Your task to perform on an android device: Open Youtube and go to the subscriptions tab Image 0: 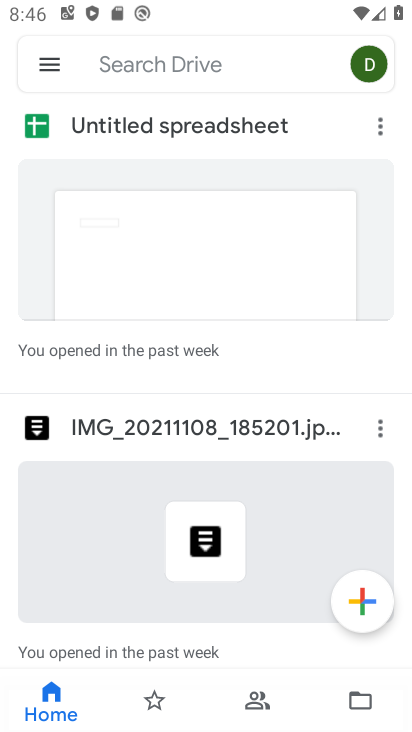
Step 0: press home button
Your task to perform on an android device: Open Youtube and go to the subscriptions tab Image 1: 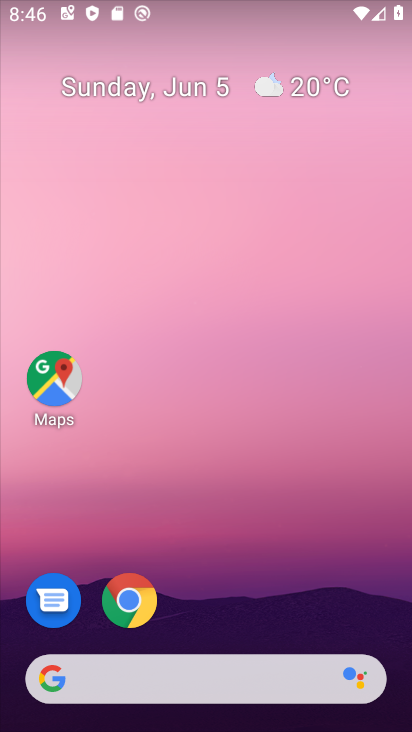
Step 1: drag from (200, 596) to (208, 19)
Your task to perform on an android device: Open Youtube and go to the subscriptions tab Image 2: 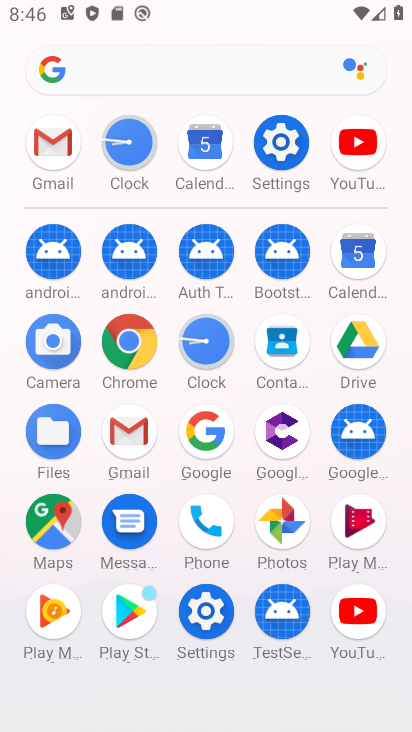
Step 2: click (362, 607)
Your task to perform on an android device: Open Youtube and go to the subscriptions tab Image 3: 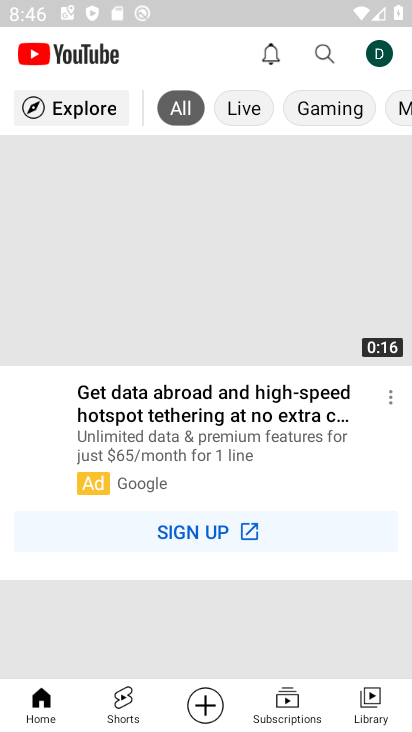
Step 3: click (296, 705)
Your task to perform on an android device: Open Youtube and go to the subscriptions tab Image 4: 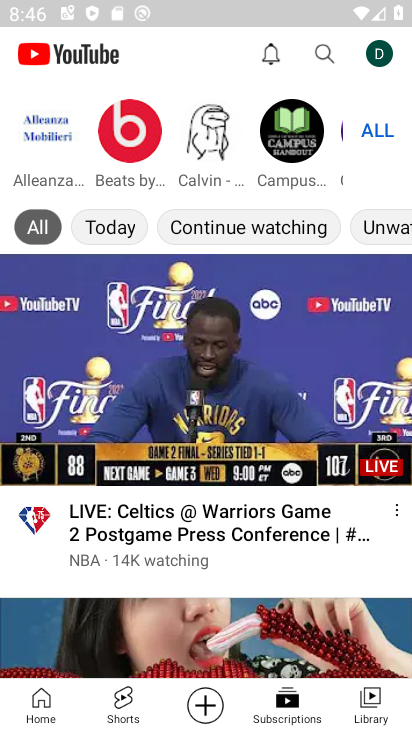
Step 4: task complete